Your task to perform on an android device: Open Google Chrome and click the shortcut for Amazon.com Image 0: 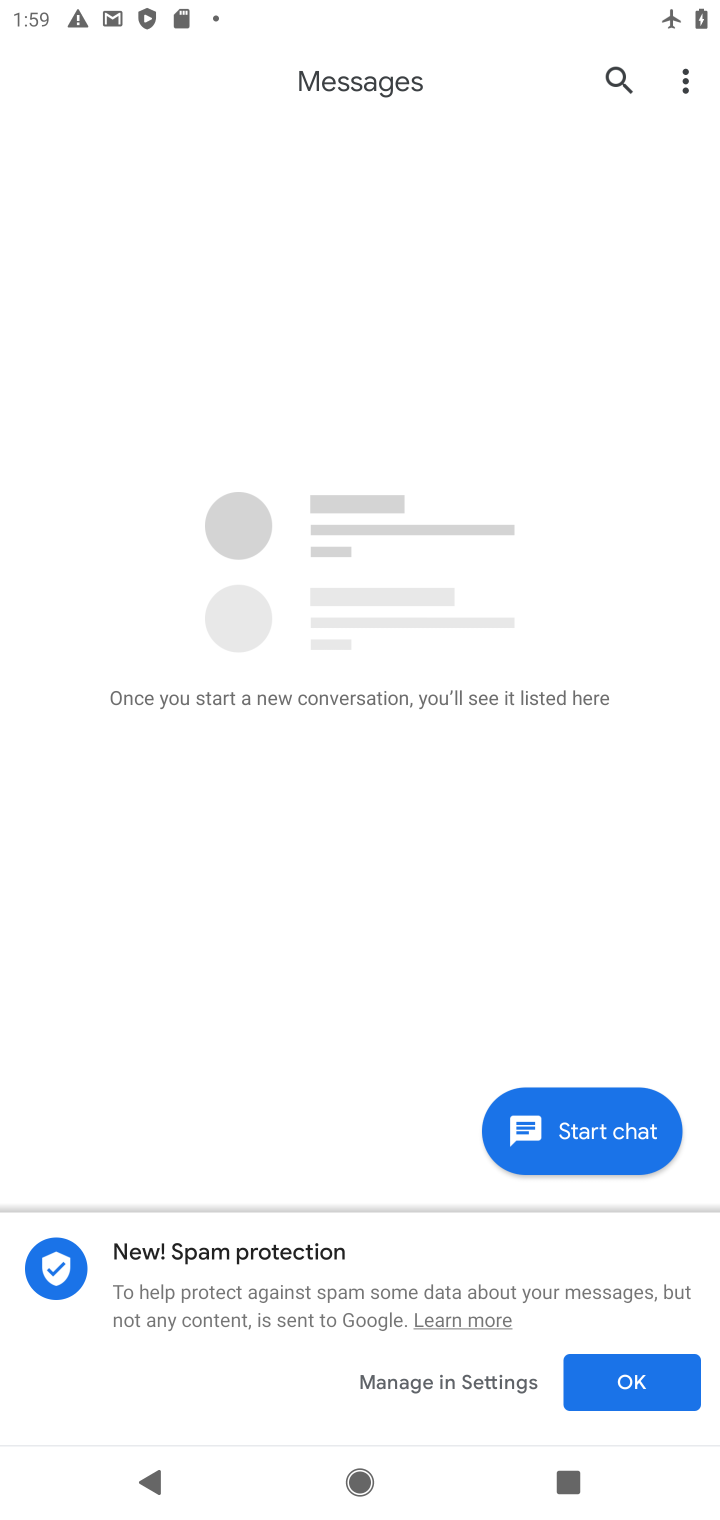
Step 0: press home button
Your task to perform on an android device: Open Google Chrome and click the shortcut for Amazon.com Image 1: 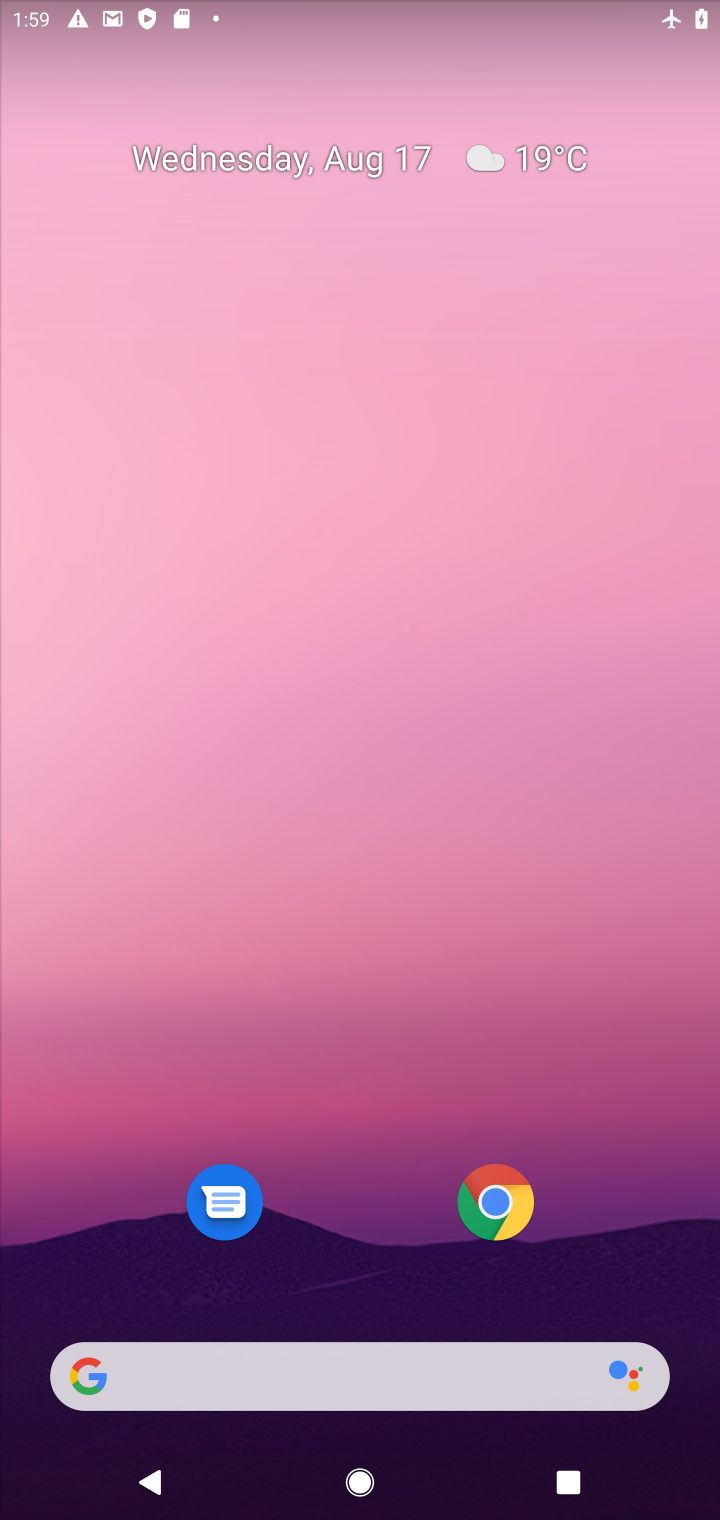
Step 1: click (482, 1169)
Your task to perform on an android device: Open Google Chrome and click the shortcut for Amazon.com Image 2: 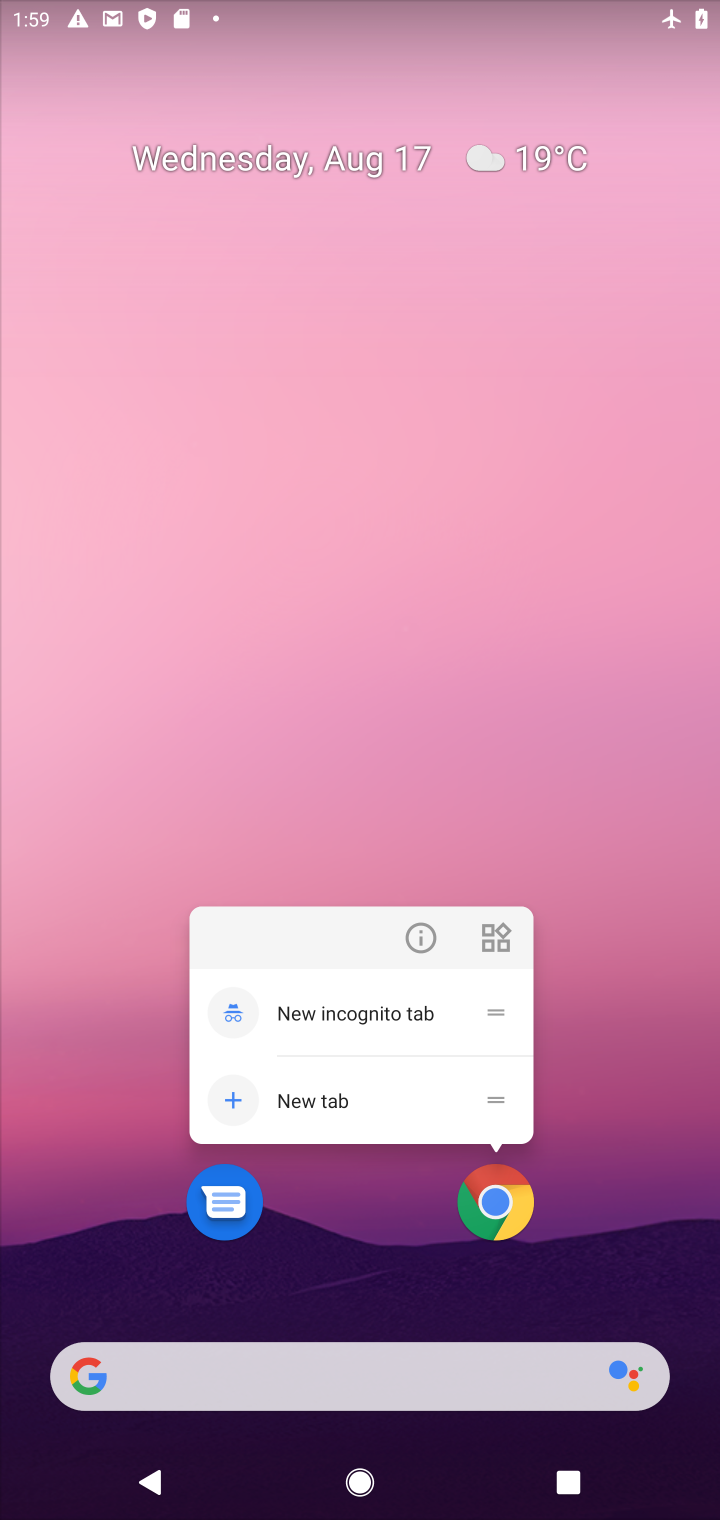
Step 2: click (493, 1208)
Your task to perform on an android device: Open Google Chrome and click the shortcut for Amazon.com Image 3: 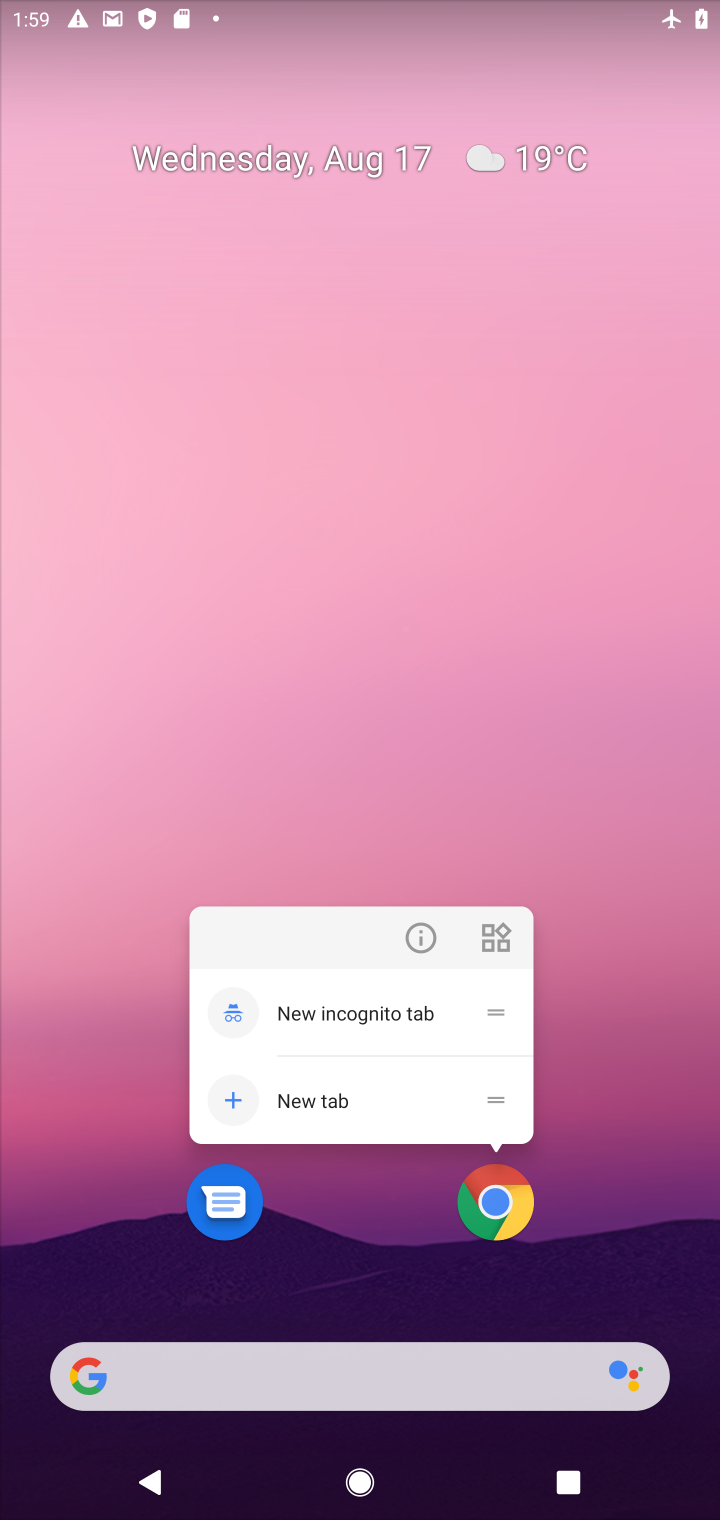
Step 3: click (494, 1223)
Your task to perform on an android device: Open Google Chrome and click the shortcut for Amazon.com Image 4: 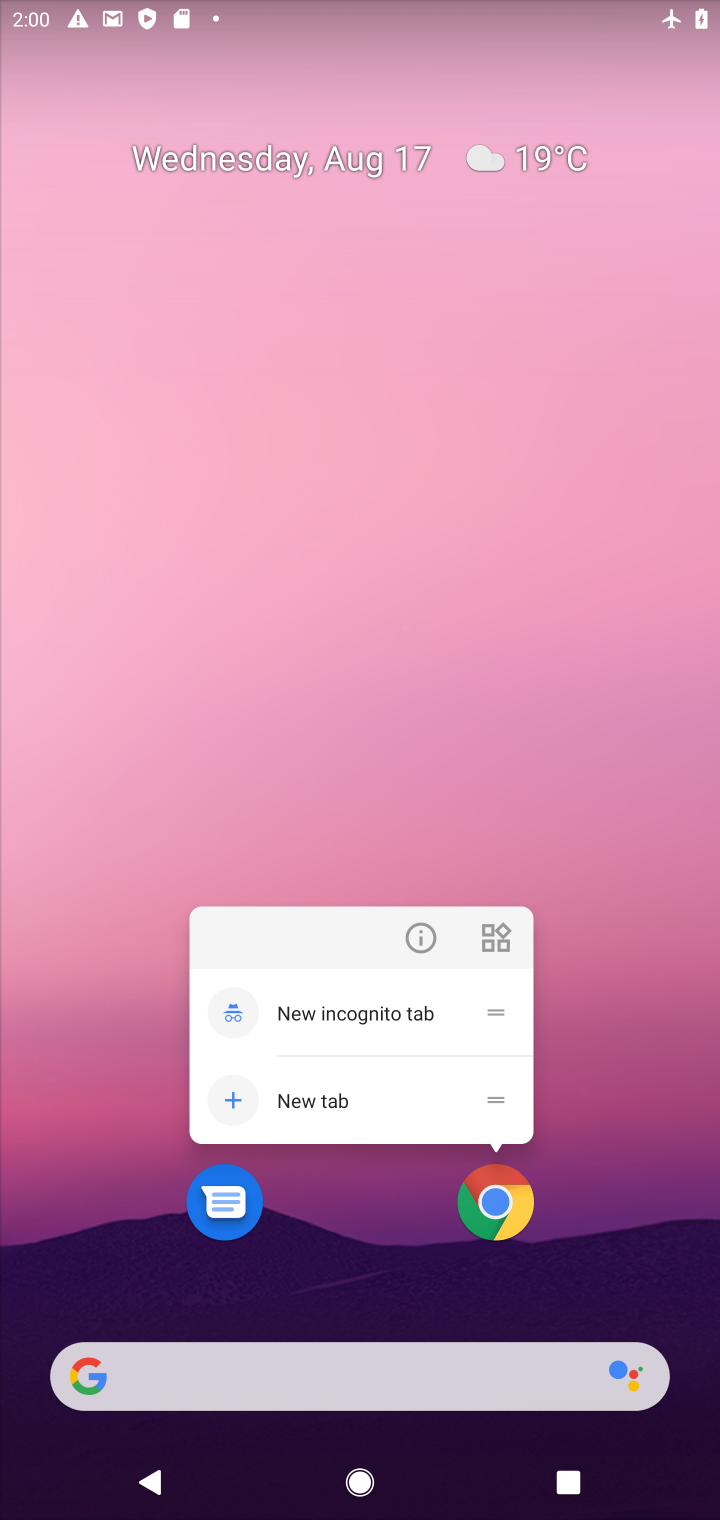
Step 4: click (510, 1209)
Your task to perform on an android device: Open Google Chrome and click the shortcut for Amazon.com Image 5: 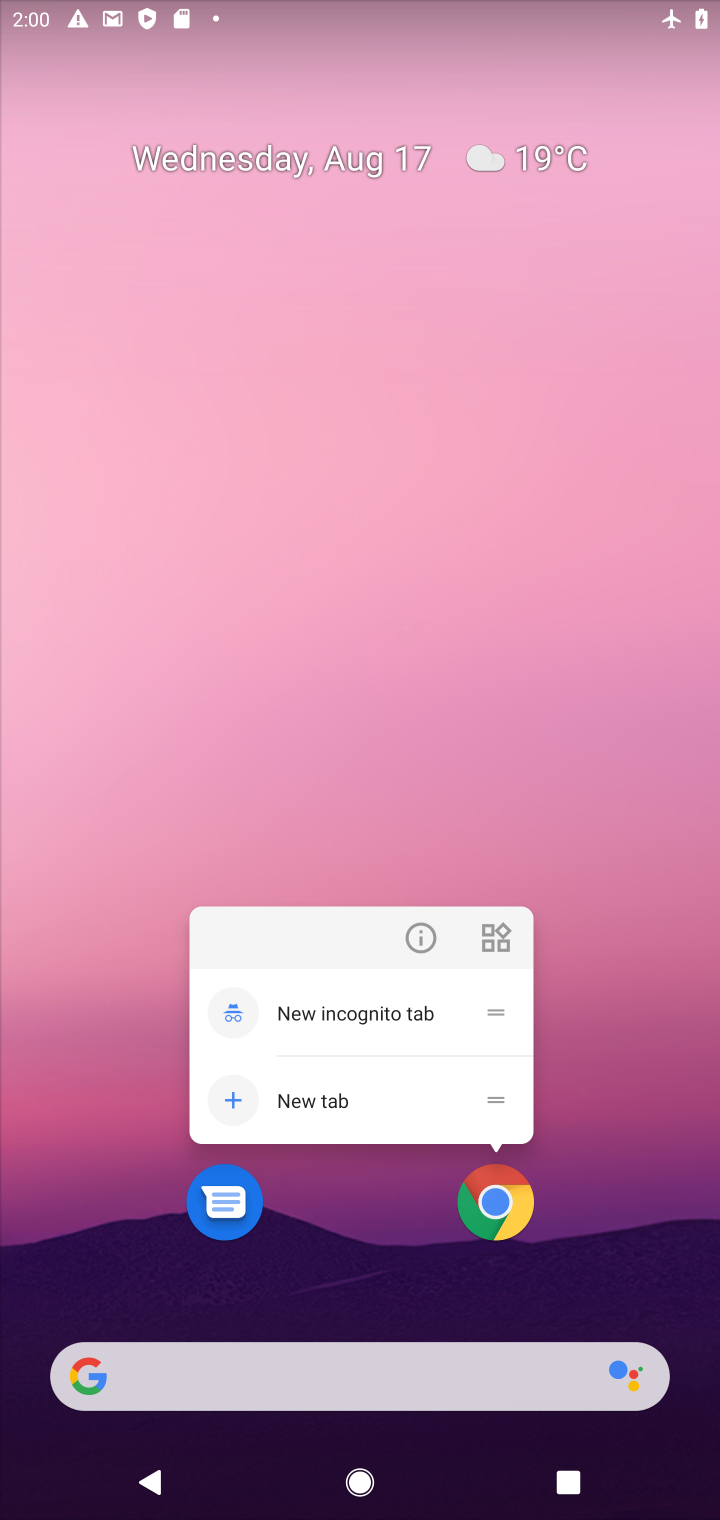
Step 5: click (501, 1205)
Your task to perform on an android device: Open Google Chrome and click the shortcut for Amazon.com Image 6: 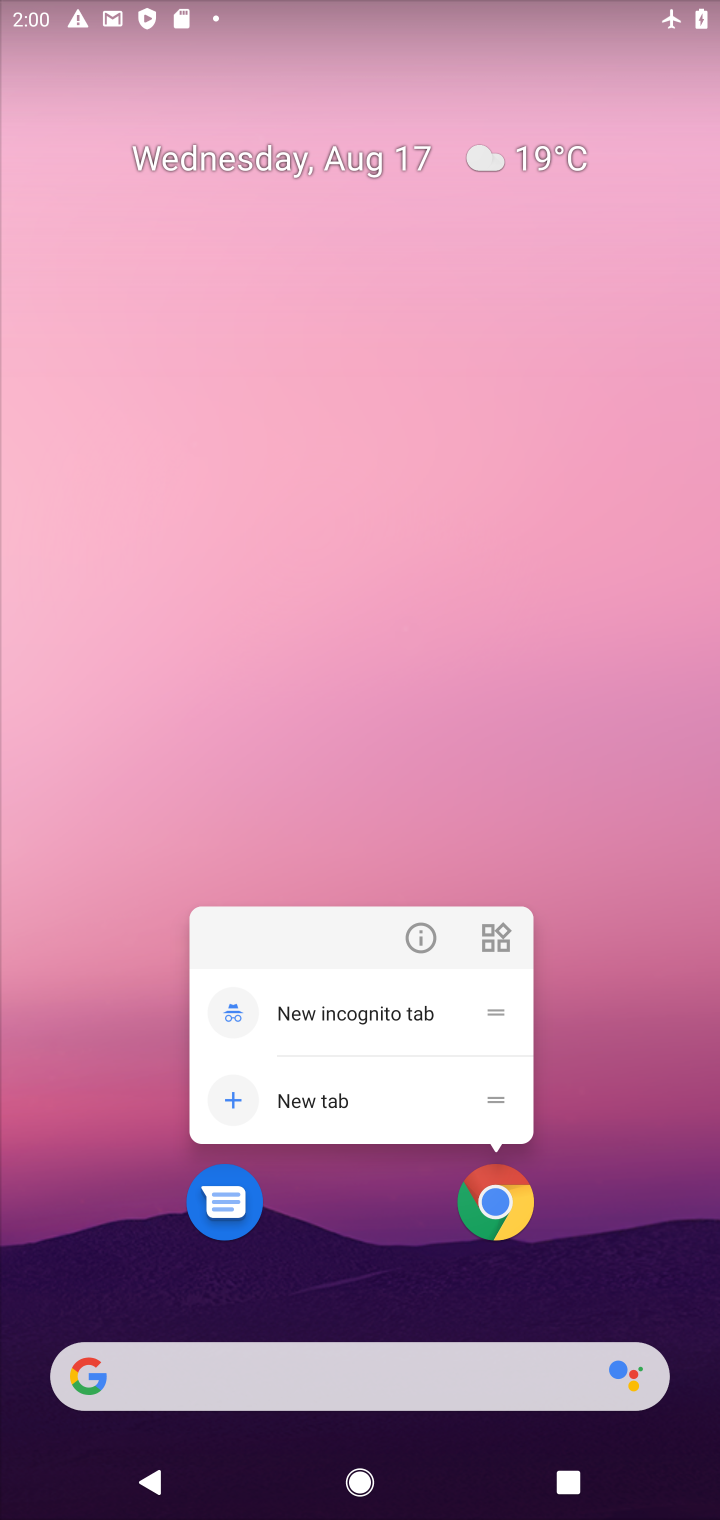
Step 6: click (507, 1188)
Your task to perform on an android device: Open Google Chrome and click the shortcut for Amazon.com Image 7: 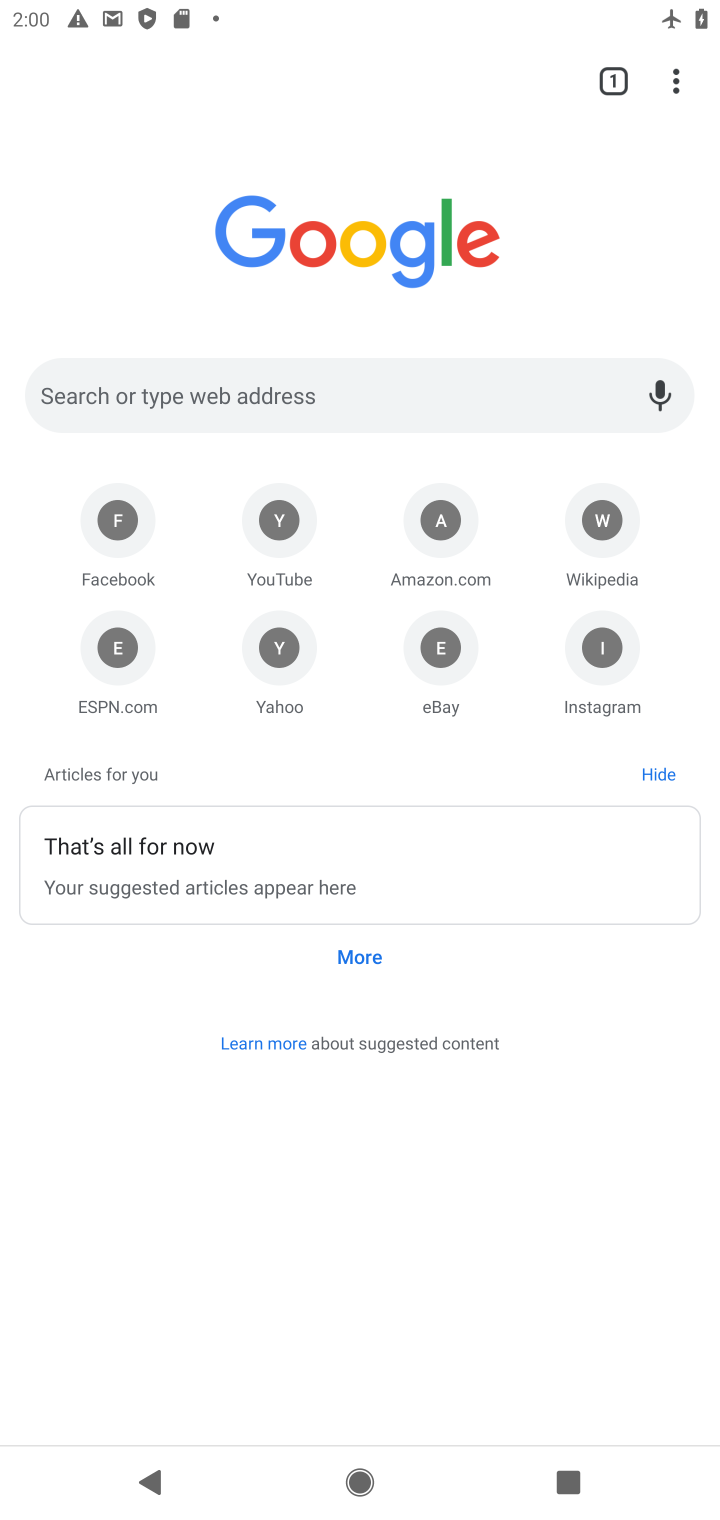
Step 7: click (432, 539)
Your task to perform on an android device: Open Google Chrome and click the shortcut for Amazon.com Image 8: 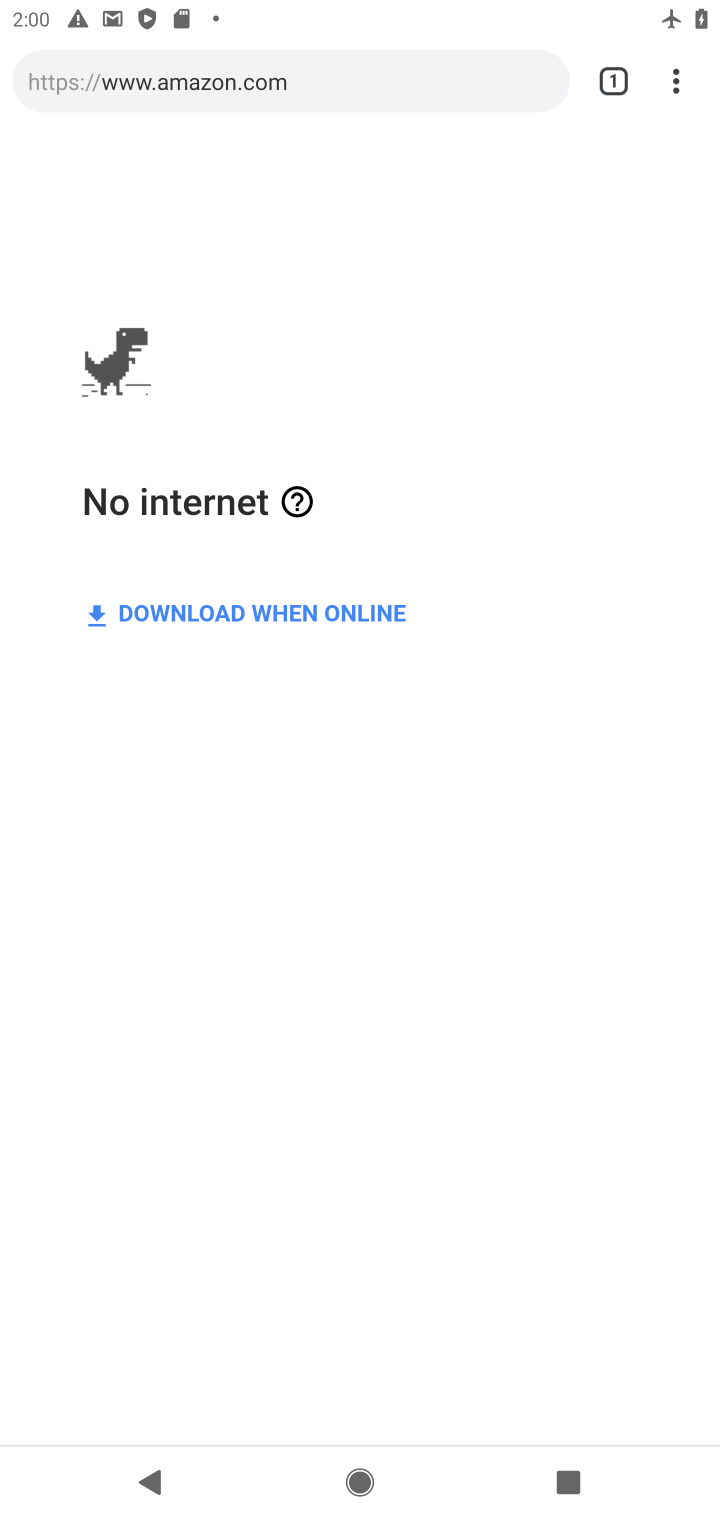
Step 8: task complete